Your task to perform on an android device: Open Google Maps Image 0: 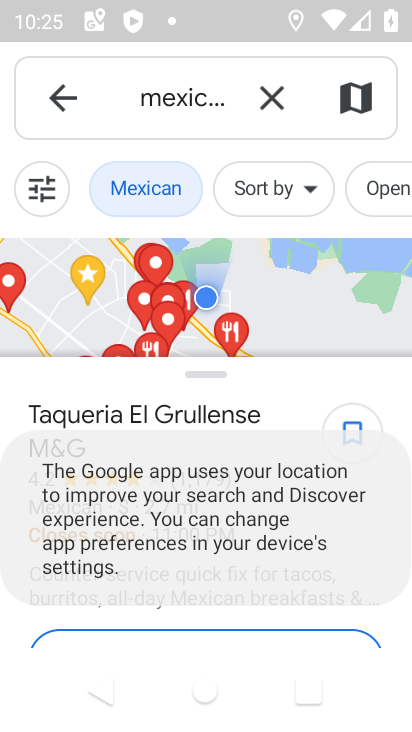
Step 0: press home button
Your task to perform on an android device: Open Google Maps Image 1: 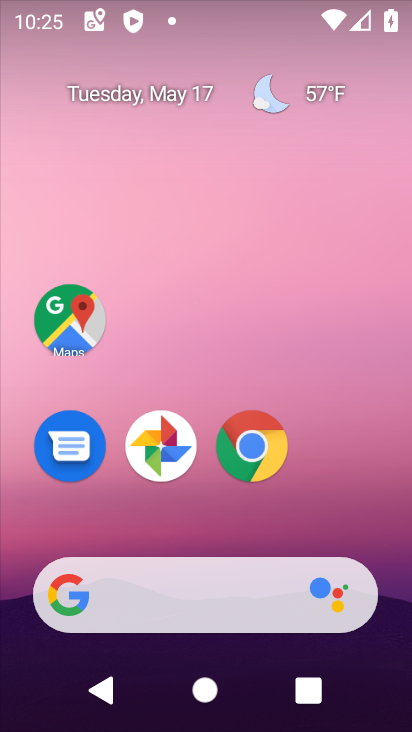
Step 1: click (56, 314)
Your task to perform on an android device: Open Google Maps Image 2: 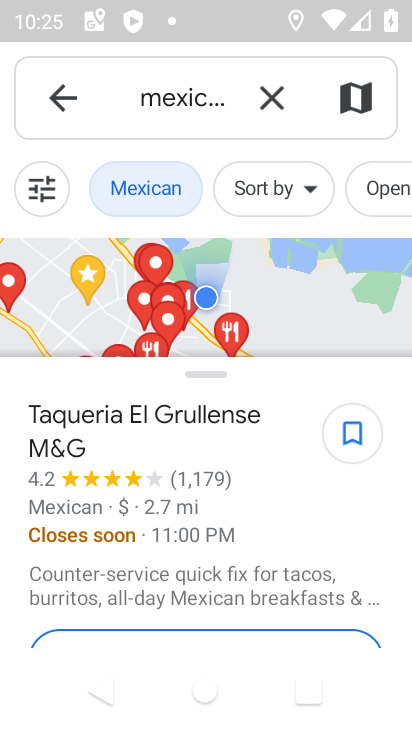
Step 2: click (271, 95)
Your task to perform on an android device: Open Google Maps Image 3: 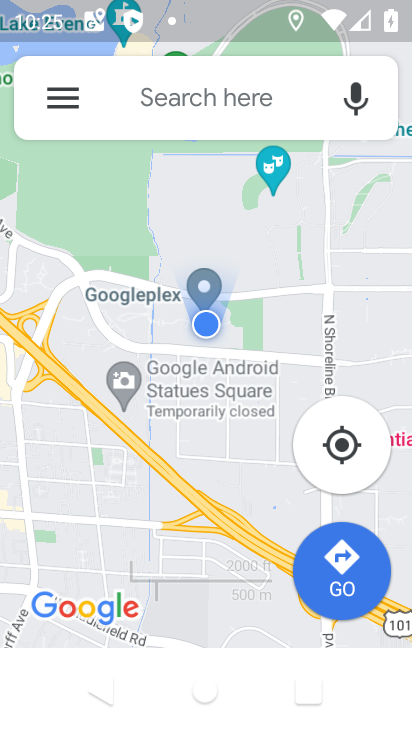
Step 3: task complete